Your task to perform on an android device: all mails in gmail Image 0: 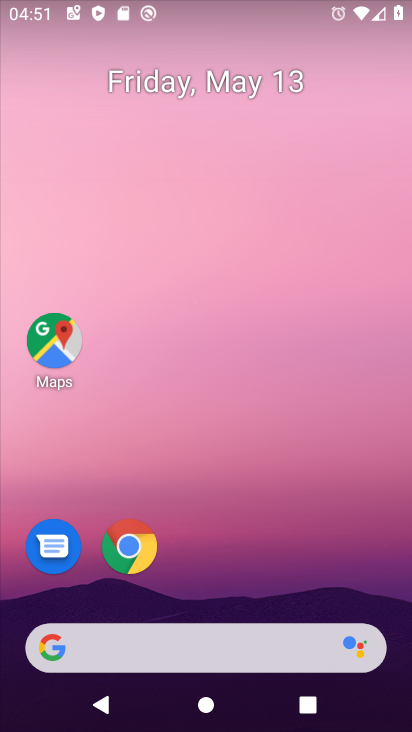
Step 0: drag from (237, 585) to (341, 12)
Your task to perform on an android device: all mails in gmail Image 1: 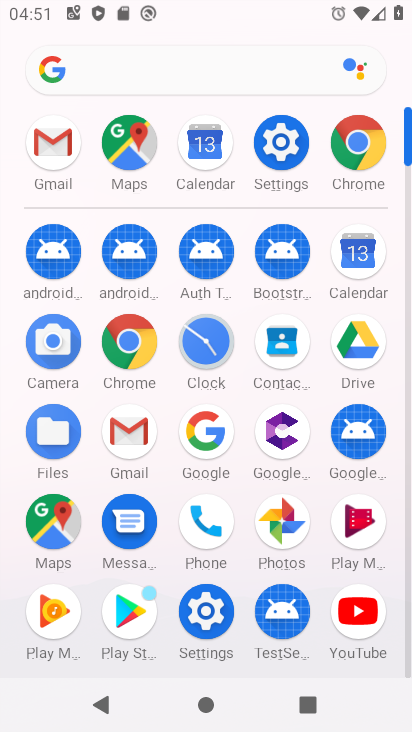
Step 1: click (125, 444)
Your task to perform on an android device: all mails in gmail Image 2: 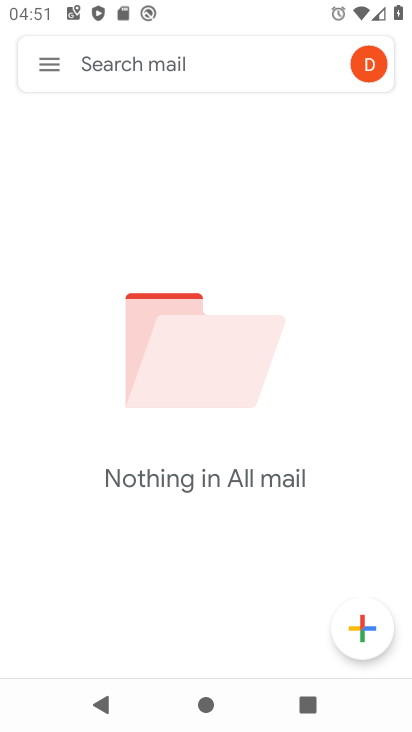
Step 2: task complete